Your task to perform on an android device: Go to accessibility settings Image 0: 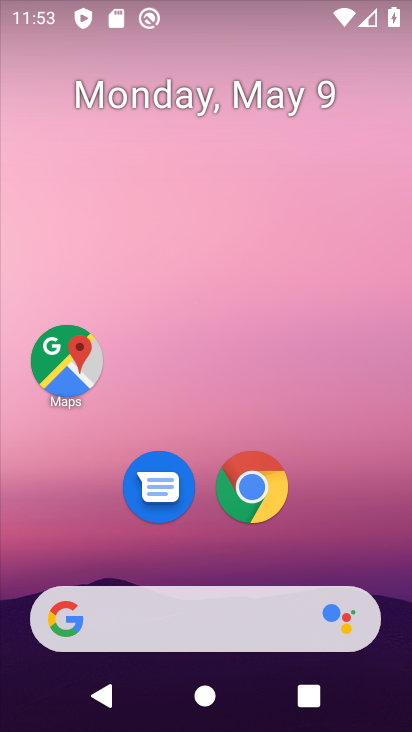
Step 0: drag from (334, 528) to (320, 219)
Your task to perform on an android device: Go to accessibility settings Image 1: 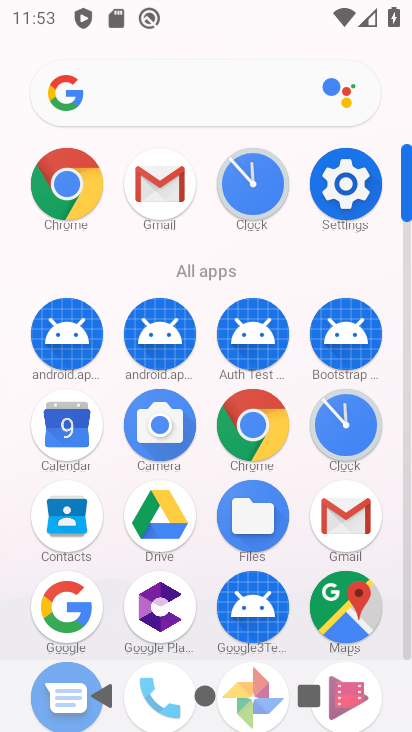
Step 1: click (341, 206)
Your task to perform on an android device: Go to accessibility settings Image 2: 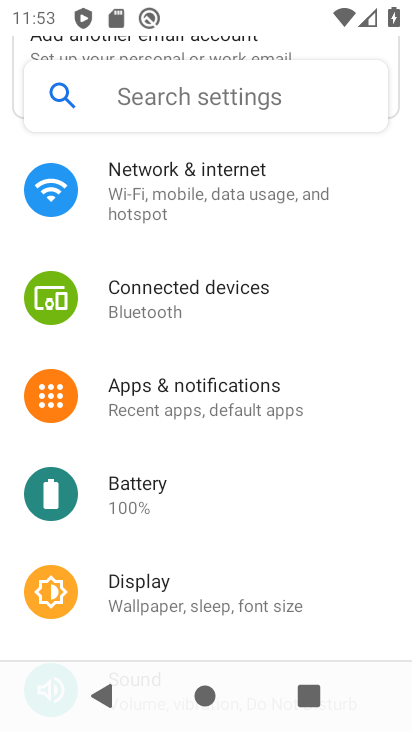
Step 2: drag from (203, 523) to (212, 334)
Your task to perform on an android device: Go to accessibility settings Image 3: 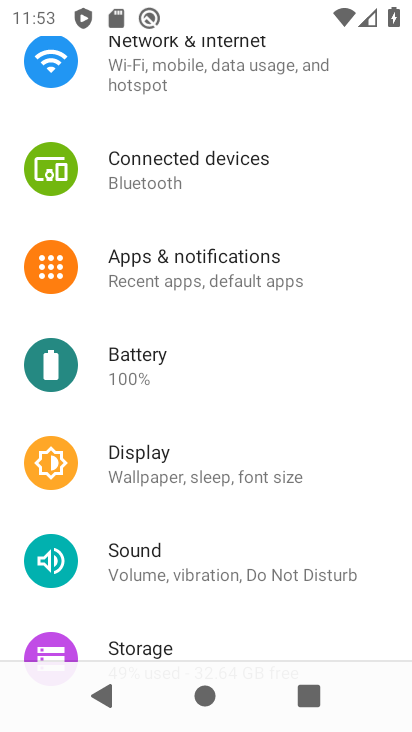
Step 3: drag from (216, 493) to (234, 300)
Your task to perform on an android device: Go to accessibility settings Image 4: 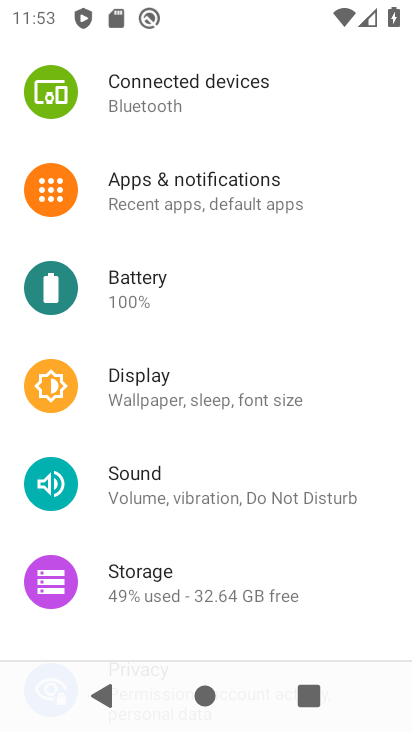
Step 4: drag from (183, 543) to (247, 241)
Your task to perform on an android device: Go to accessibility settings Image 5: 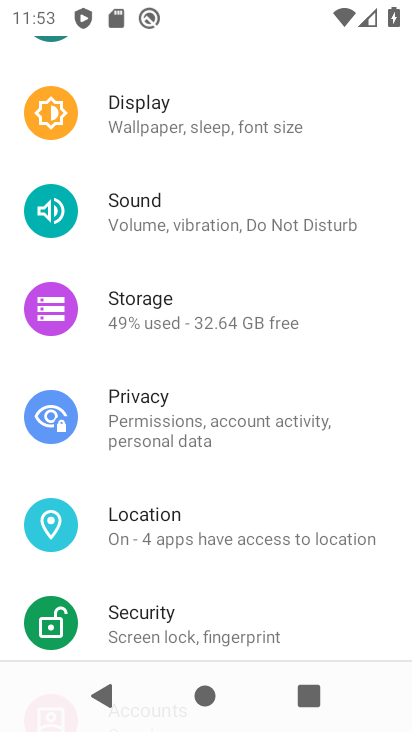
Step 5: drag from (237, 545) to (313, 263)
Your task to perform on an android device: Go to accessibility settings Image 6: 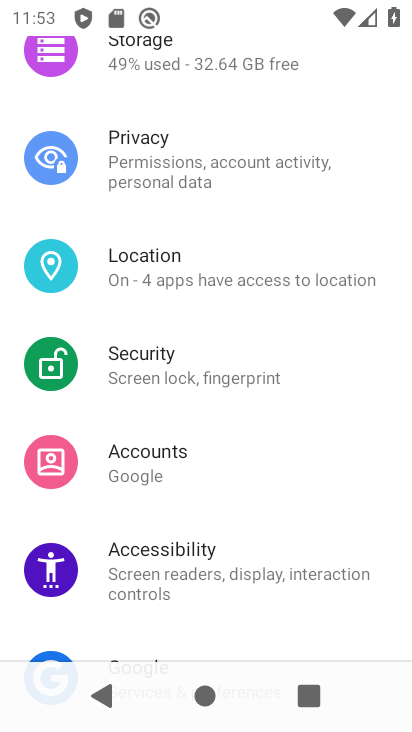
Step 6: click (219, 583)
Your task to perform on an android device: Go to accessibility settings Image 7: 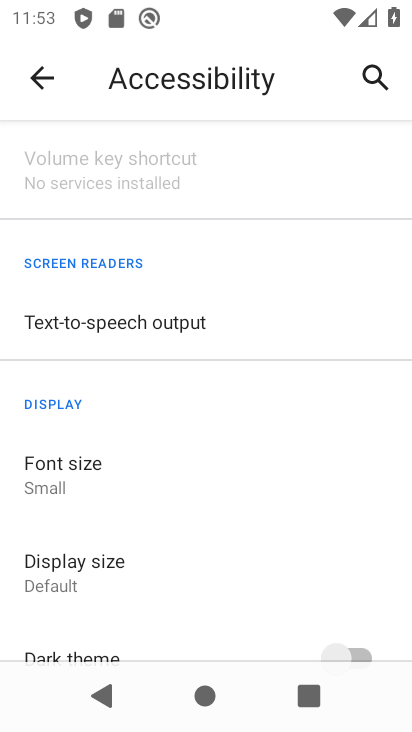
Step 7: task complete